Your task to perform on an android device: Search for a new bike on Walmart. Image 0: 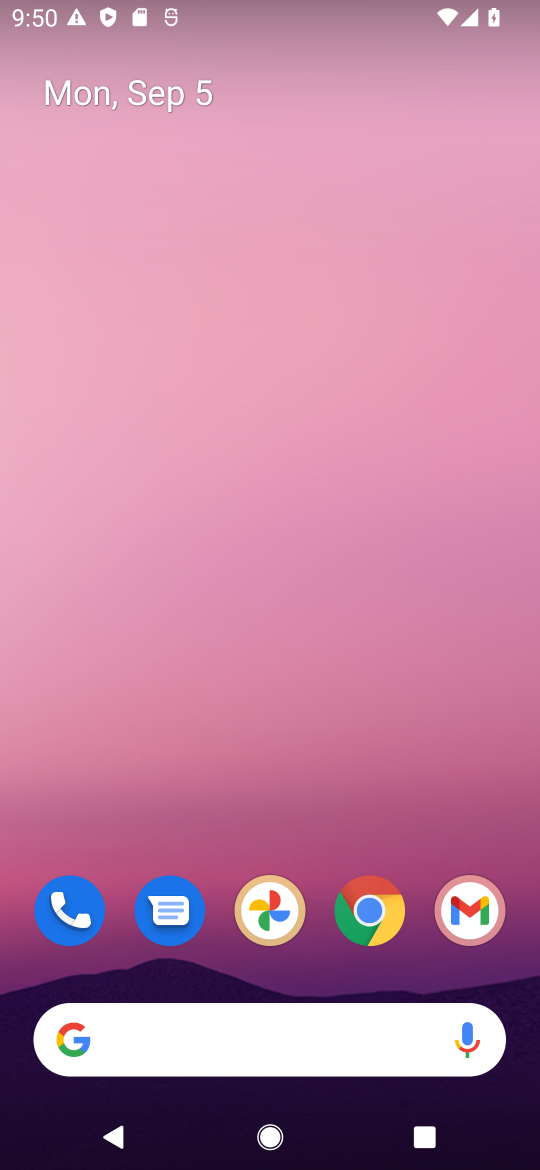
Step 0: click (345, 915)
Your task to perform on an android device: Search for a new bike on Walmart. Image 1: 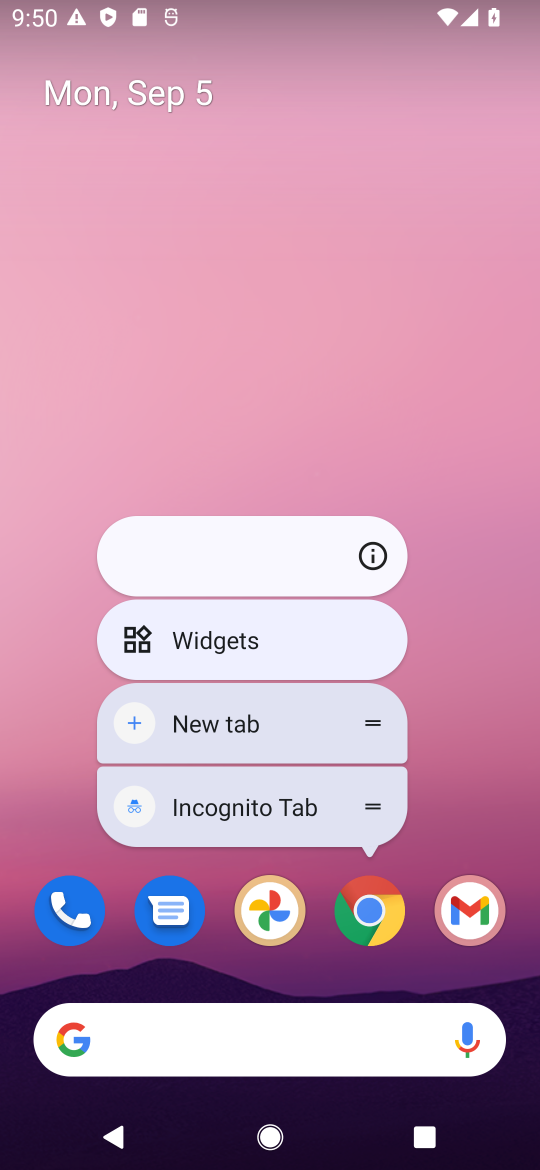
Step 1: click (370, 915)
Your task to perform on an android device: Search for a new bike on Walmart. Image 2: 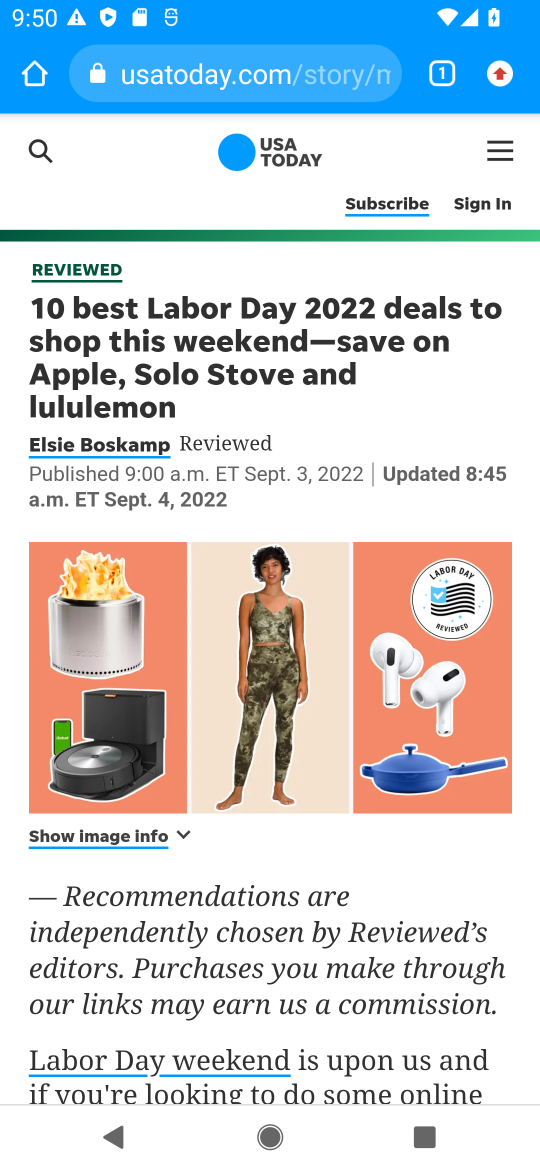
Step 2: click (228, 77)
Your task to perform on an android device: Search for a new bike on Walmart. Image 3: 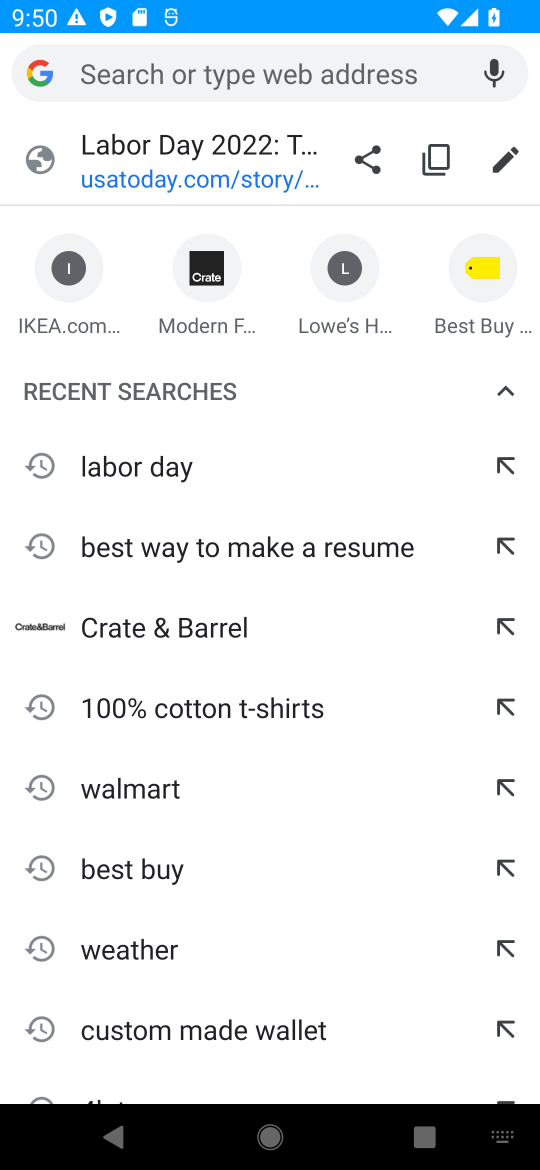
Step 3: type "new bike on walmart"
Your task to perform on an android device: Search for a new bike on Walmart. Image 4: 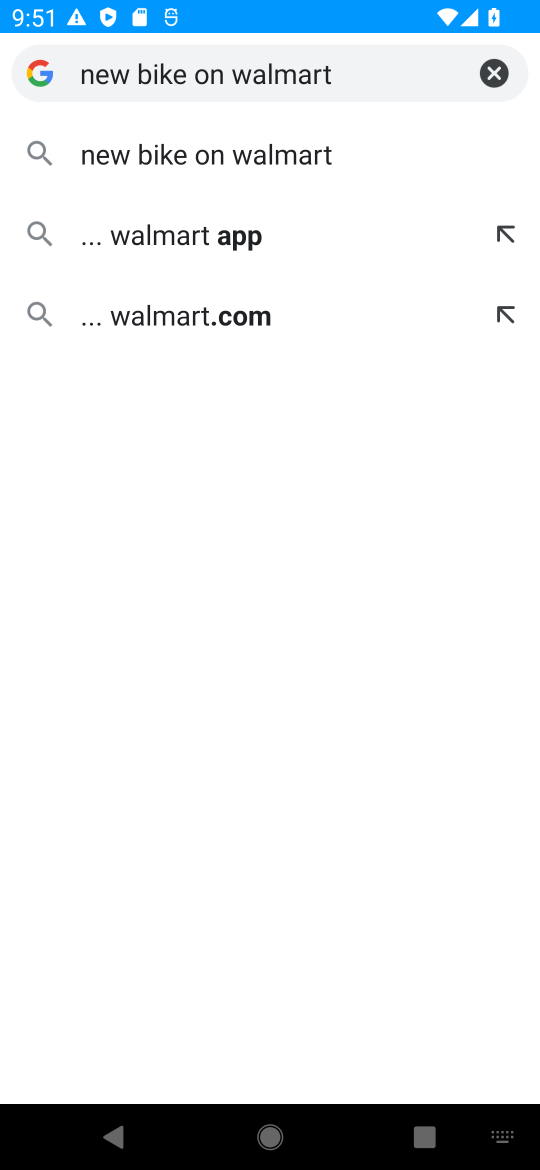
Step 4: press enter
Your task to perform on an android device: Search for a new bike on Walmart. Image 5: 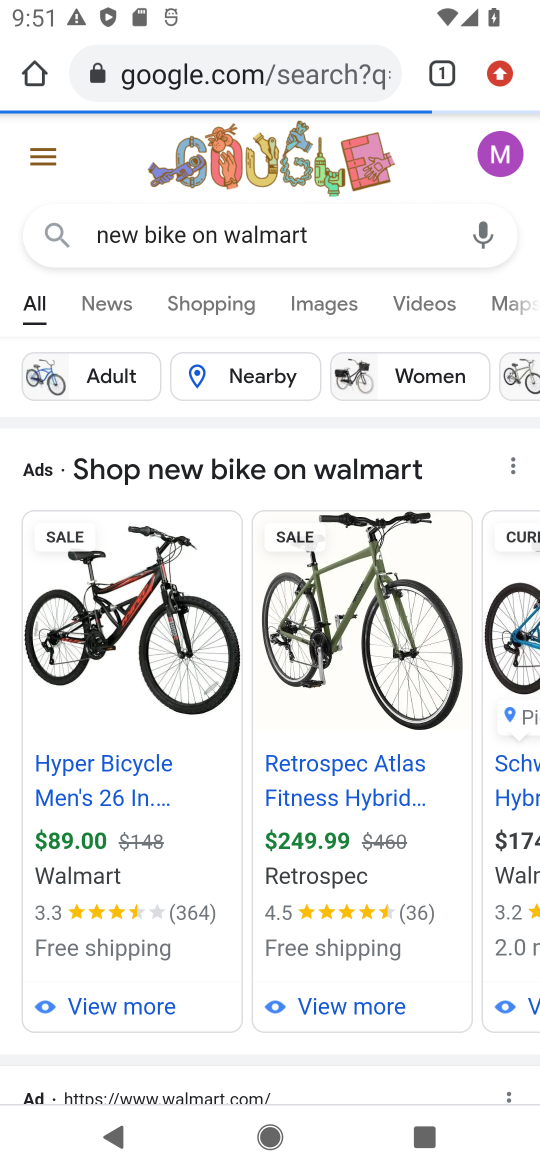
Step 5: drag from (221, 567) to (196, 378)
Your task to perform on an android device: Search for a new bike on Walmart. Image 6: 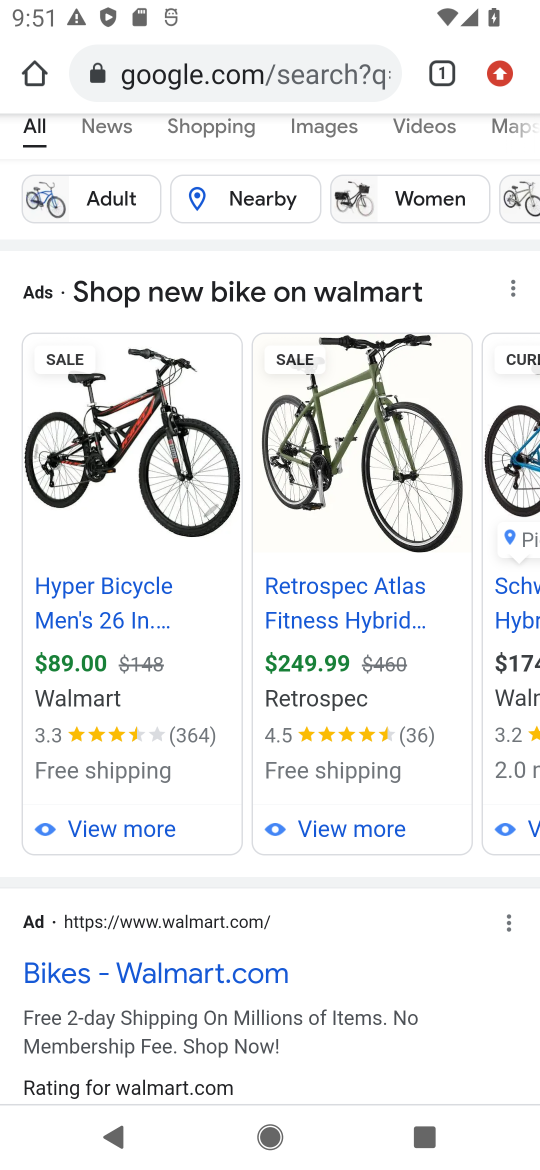
Step 6: click (225, 968)
Your task to perform on an android device: Search for a new bike on Walmart. Image 7: 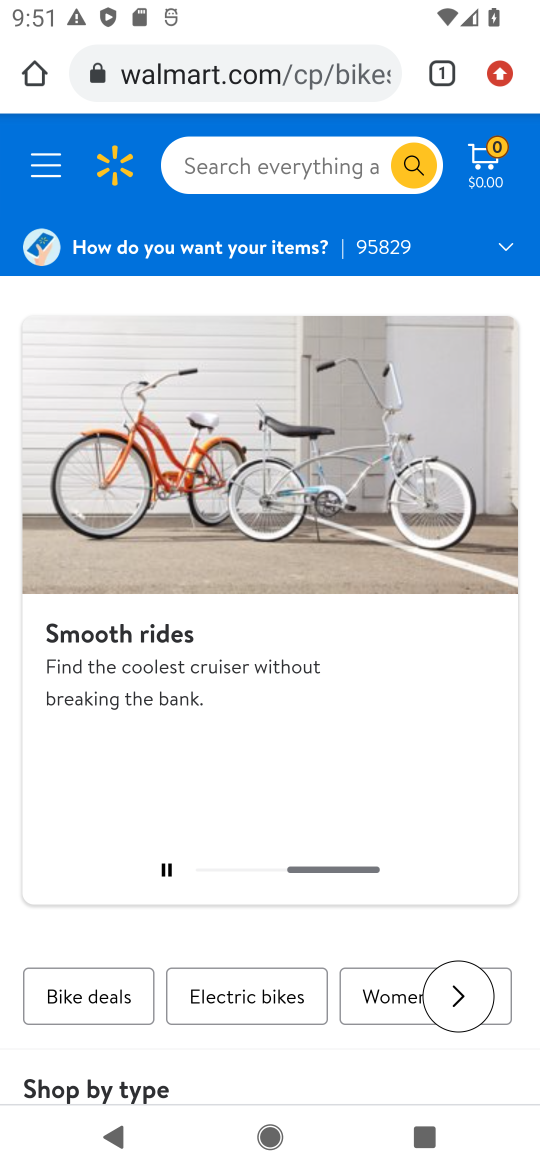
Step 7: task complete